Your task to perform on an android device: visit the assistant section in the google photos Image 0: 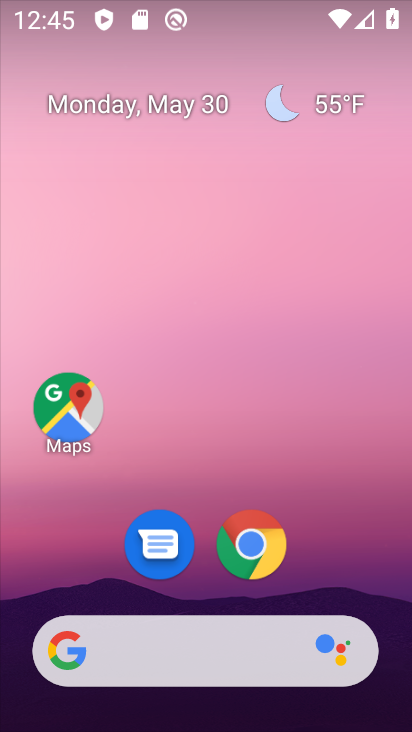
Step 0: drag from (323, 535) to (297, 120)
Your task to perform on an android device: visit the assistant section in the google photos Image 1: 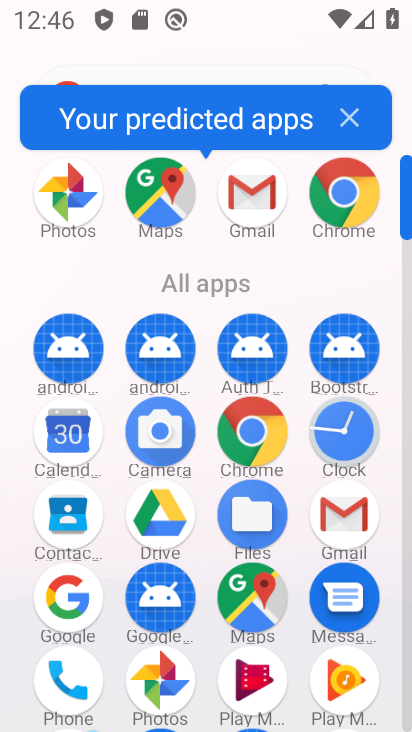
Step 1: click (166, 667)
Your task to perform on an android device: visit the assistant section in the google photos Image 2: 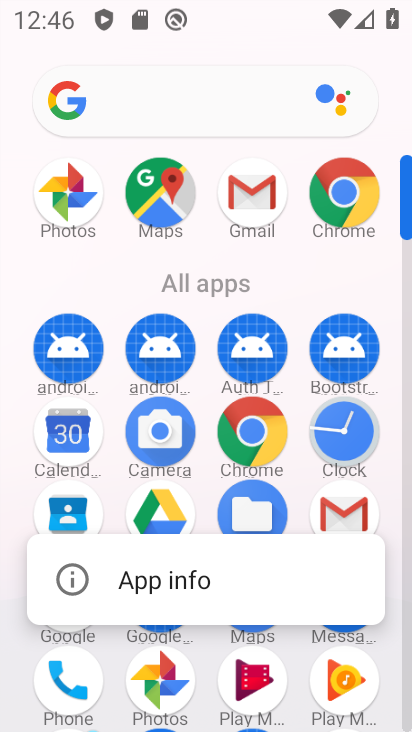
Step 2: click (156, 699)
Your task to perform on an android device: visit the assistant section in the google photos Image 3: 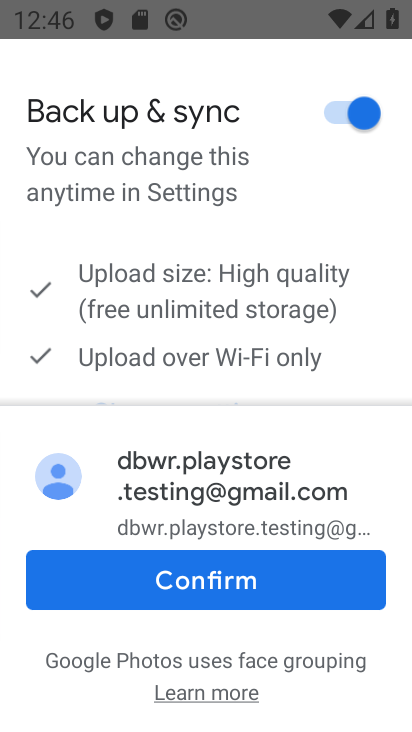
Step 3: click (263, 588)
Your task to perform on an android device: visit the assistant section in the google photos Image 4: 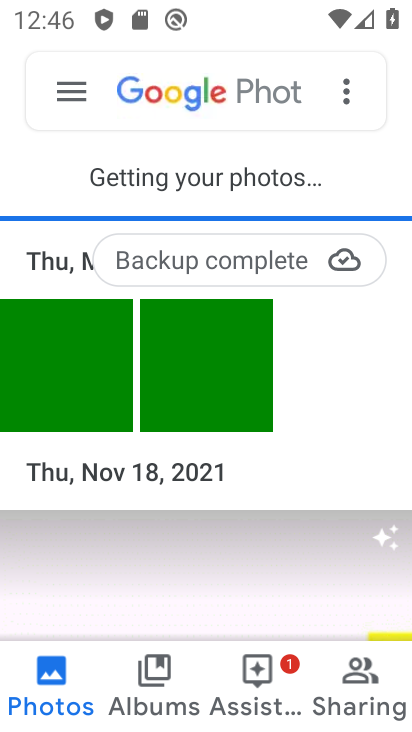
Step 4: click (259, 672)
Your task to perform on an android device: visit the assistant section in the google photos Image 5: 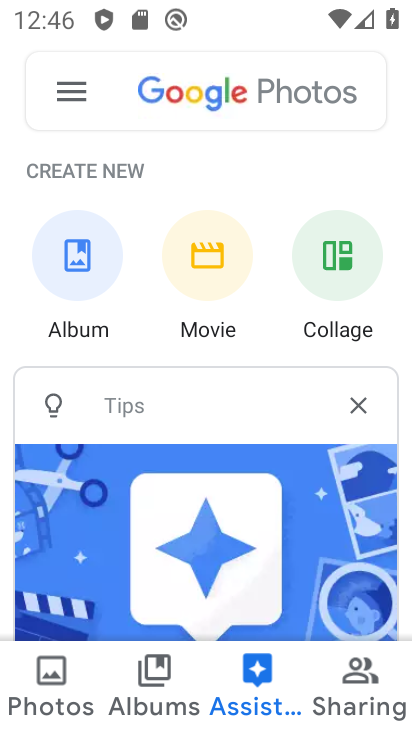
Step 5: task complete